Your task to perform on an android device: change keyboard looks Image 0: 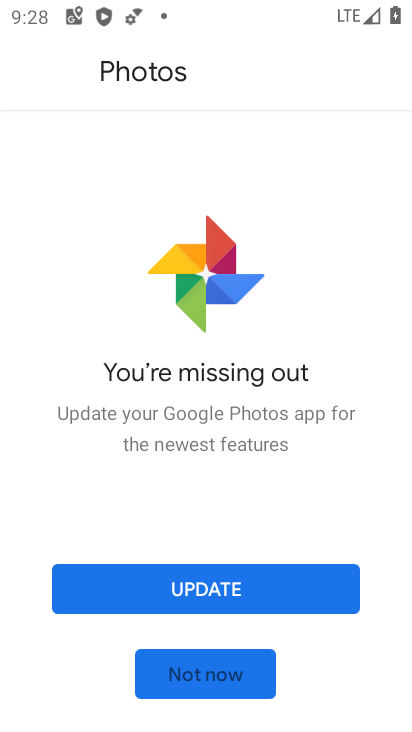
Step 0: press home button
Your task to perform on an android device: change keyboard looks Image 1: 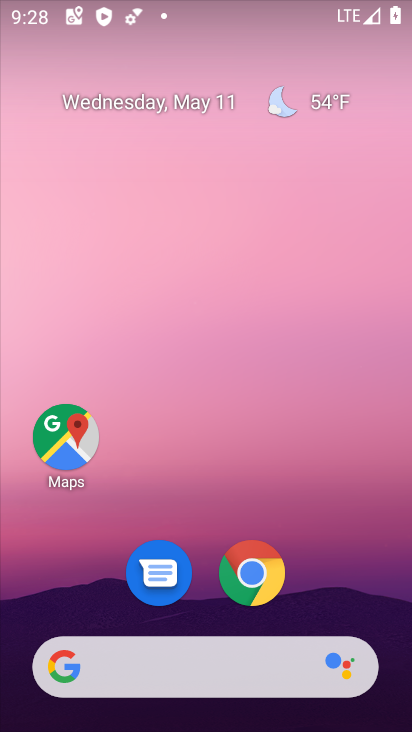
Step 1: drag from (311, 660) to (351, 63)
Your task to perform on an android device: change keyboard looks Image 2: 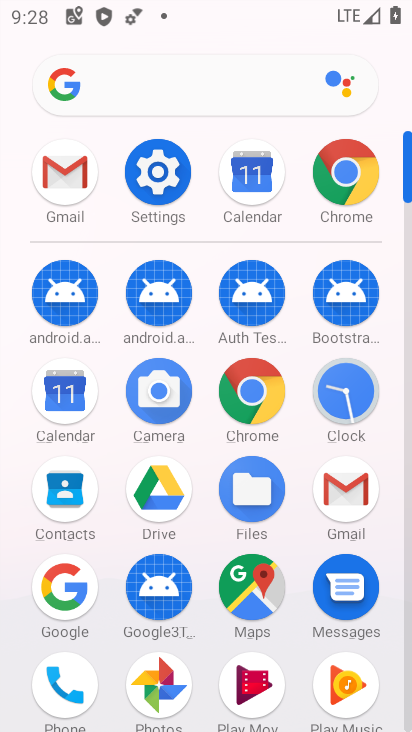
Step 2: click (150, 164)
Your task to perform on an android device: change keyboard looks Image 3: 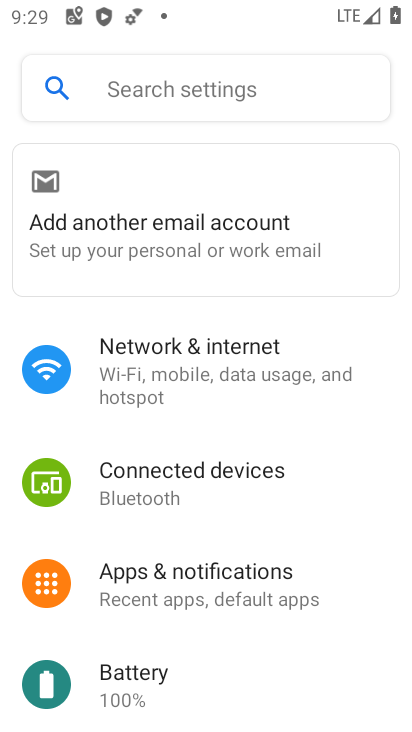
Step 3: drag from (202, 667) to (254, 141)
Your task to perform on an android device: change keyboard looks Image 4: 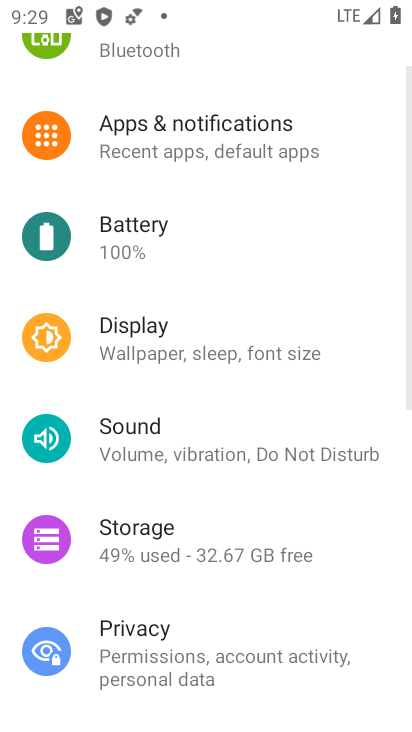
Step 4: drag from (234, 688) to (266, 184)
Your task to perform on an android device: change keyboard looks Image 5: 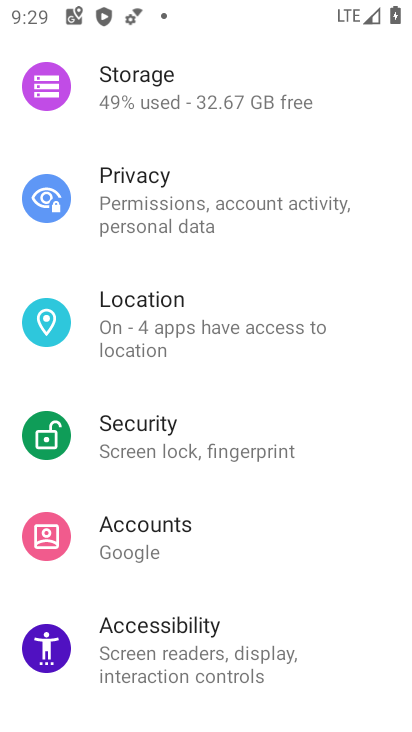
Step 5: drag from (260, 612) to (267, 269)
Your task to perform on an android device: change keyboard looks Image 6: 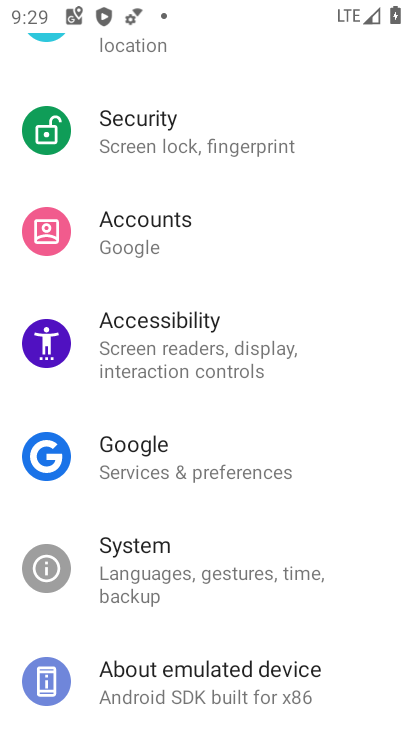
Step 6: click (180, 584)
Your task to perform on an android device: change keyboard looks Image 7: 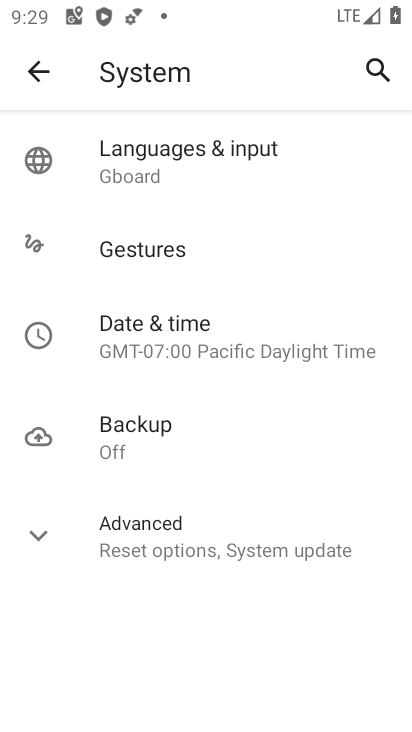
Step 7: click (225, 164)
Your task to perform on an android device: change keyboard looks Image 8: 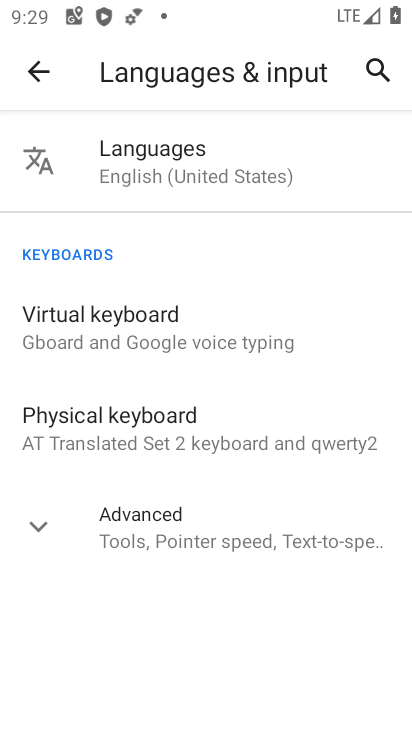
Step 8: click (181, 316)
Your task to perform on an android device: change keyboard looks Image 9: 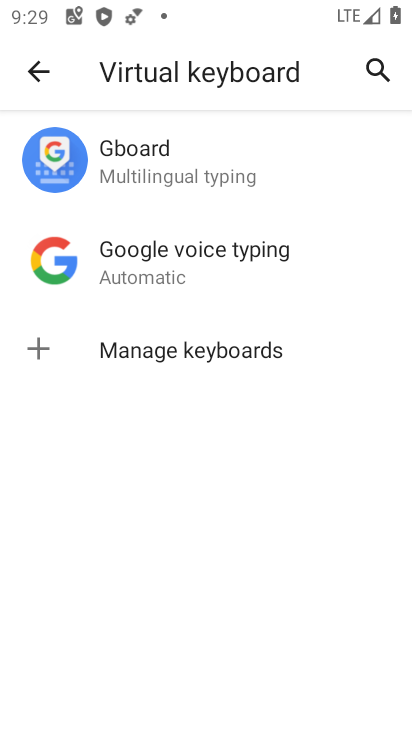
Step 9: click (228, 176)
Your task to perform on an android device: change keyboard looks Image 10: 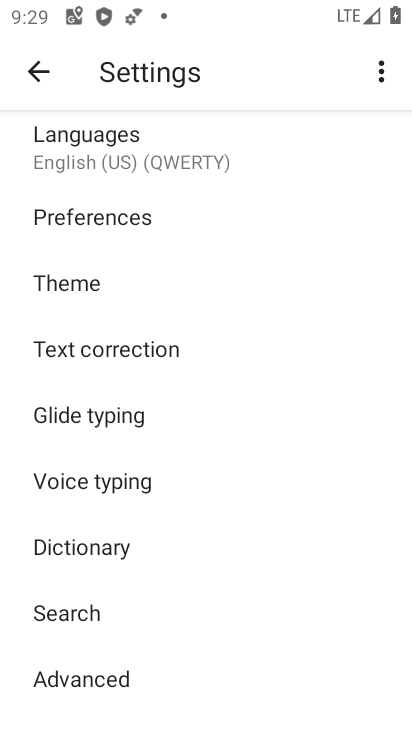
Step 10: click (68, 272)
Your task to perform on an android device: change keyboard looks Image 11: 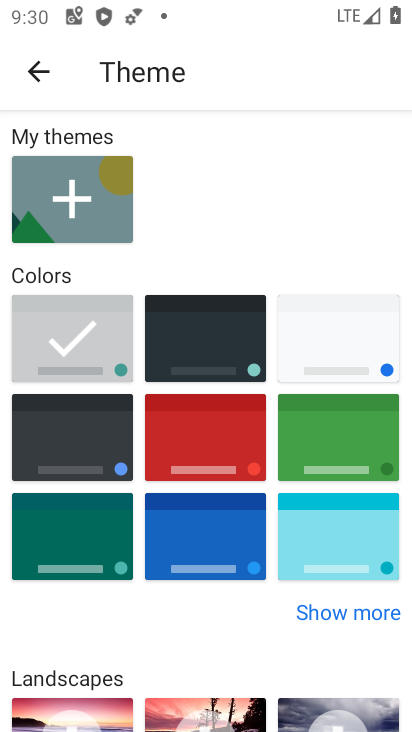
Step 11: click (206, 337)
Your task to perform on an android device: change keyboard looks Image 12: 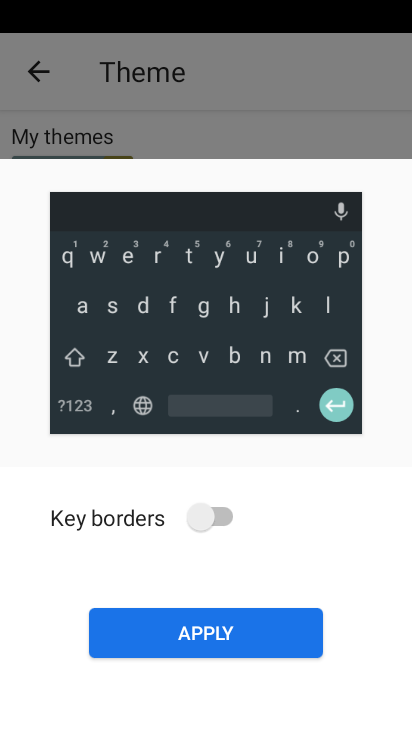
Step 12: click (246, 628)
Your task to perform on an android device: change keyboard looks Image 13: 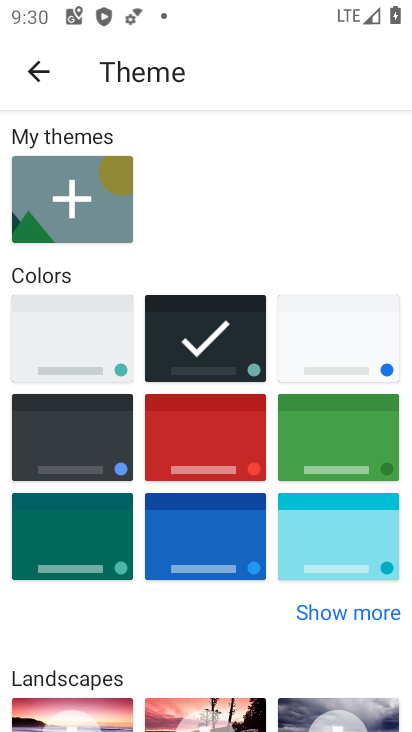
Step 13: task complete